Your task to perform on an android device: Open notification settings Image 0: 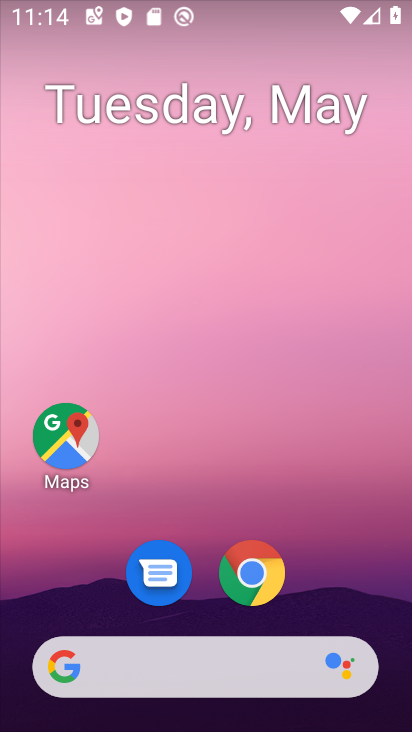
Step 0: drag from (309, 565) to (320, 217)
Your task to perform on an android device: Open notification settings Image 1: 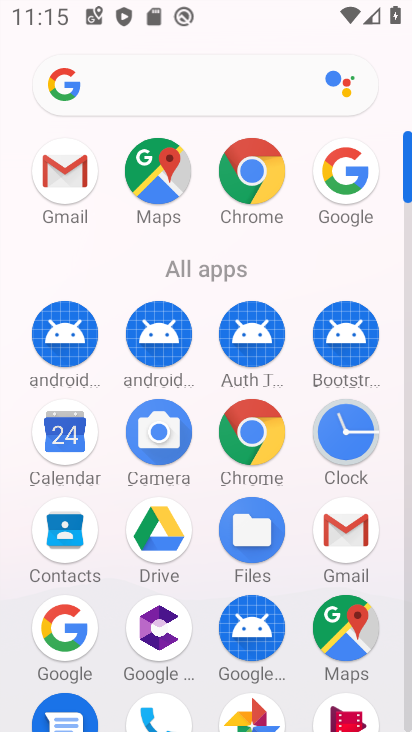
Step 1: drag from (291, 553) to (272, 324)
Your task to perform on an android device: Open notification settings Image 2: 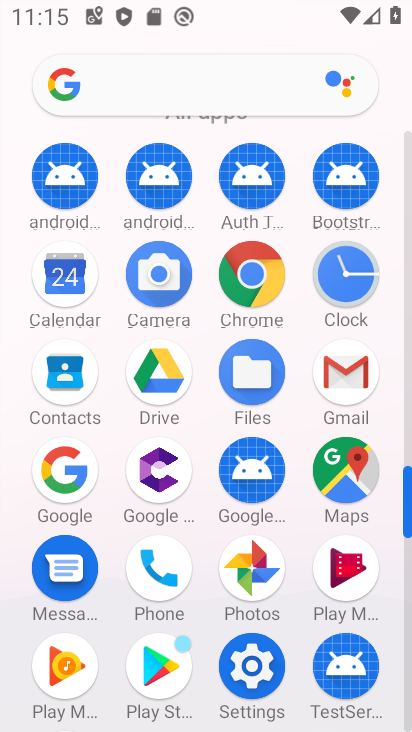
Step 2: click (248, 660)
Your task to perform on an android device: Open notification settings Image 3: 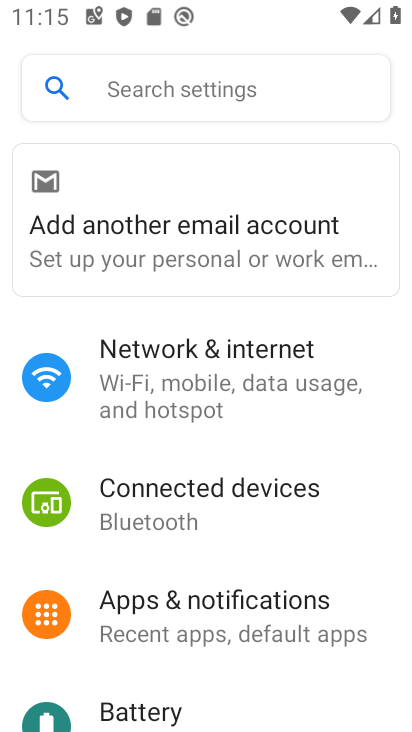
Step 3: click (219, 360)
Your task to perform on an android device: Open notification settings Image 4: 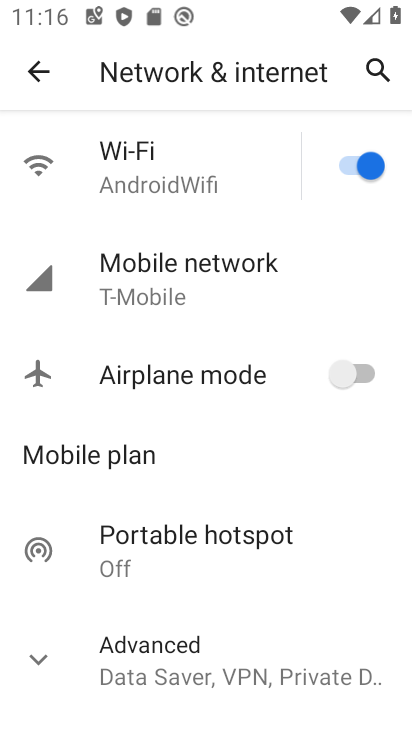
Step 4: click (20, 31)
Your task to perform on an android device: Open notification settings Image 5: 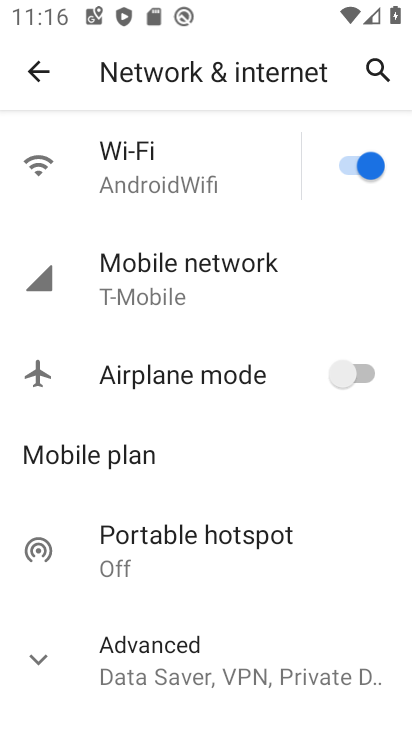
Step 5: drag from (197, 601) to (223, 261)
Your task to perform on an android device: Open notification settings Image 6: 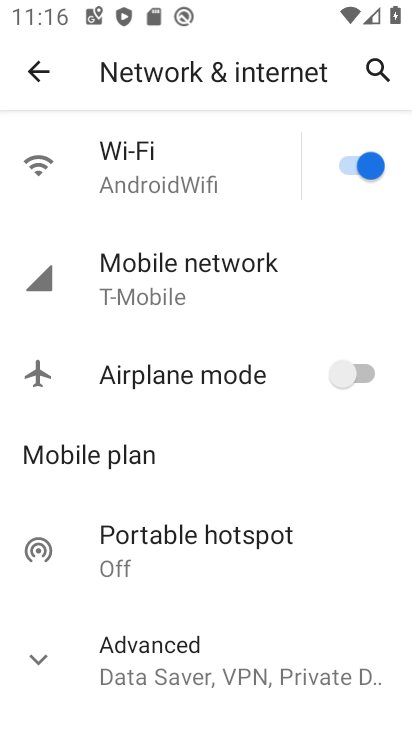
Step 6: click (48, 71)
Your task to perform on an android device: Open notification settings Image 7: 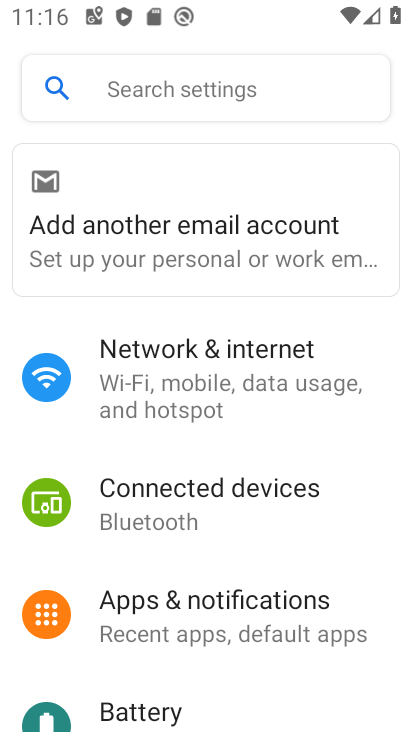
Step 7: task complete